Your task to perform on an android device: Open the Play Movies app and select the watchlist tab. Image 0: 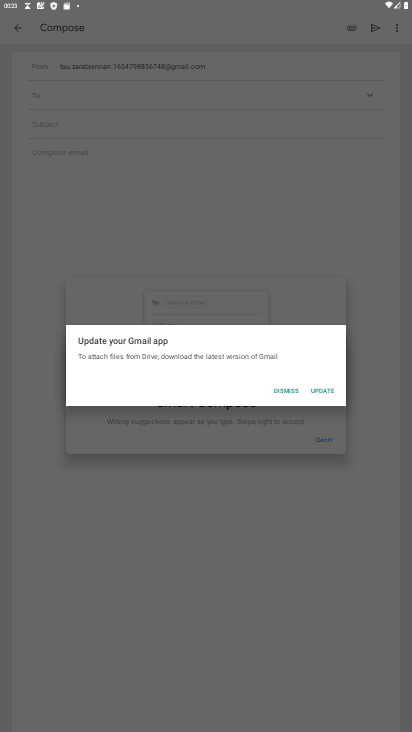
Step 0: press home button
Your task to perform on an android device: Open the Play Movies app and select the watchlist tab. Image 1: 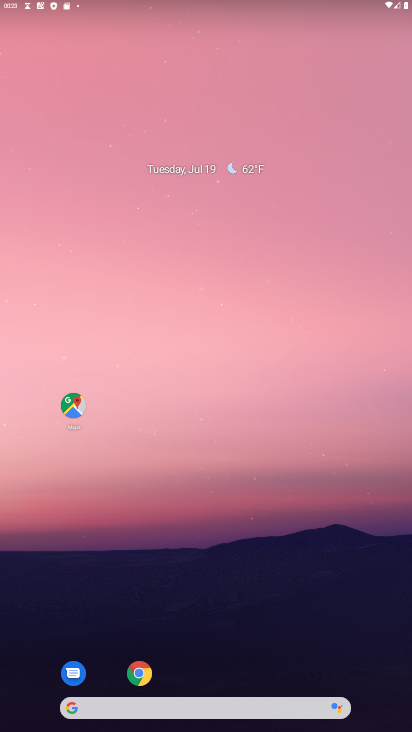
Step 1: drag from (224, 672) to (236, 295)
Your task to perform on an android device: Open the Play Movies app and select the watchlist tab. Image 2: 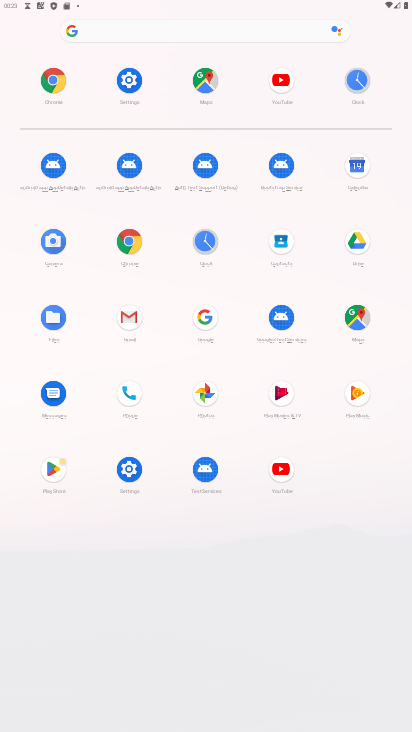
Step 2: click (276, 387)
Your task to perform on an android device: Open the Play Movies app and select the watchlist tab. Image 3: 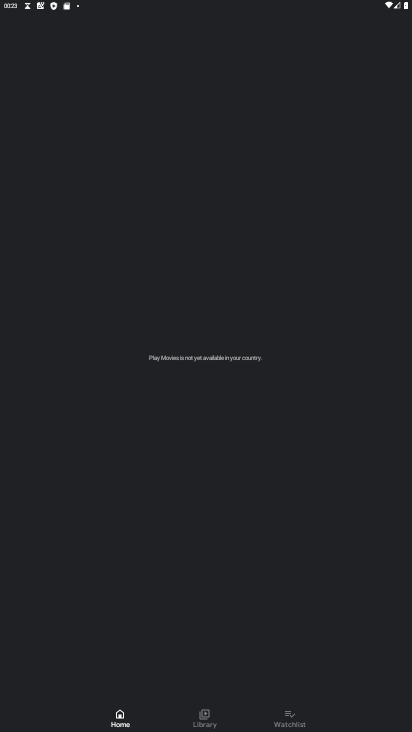
Step 3: click (298, 713)
Your task to perform on an android device: Open the Play Movies app and select the watchlist tab. Image 4: 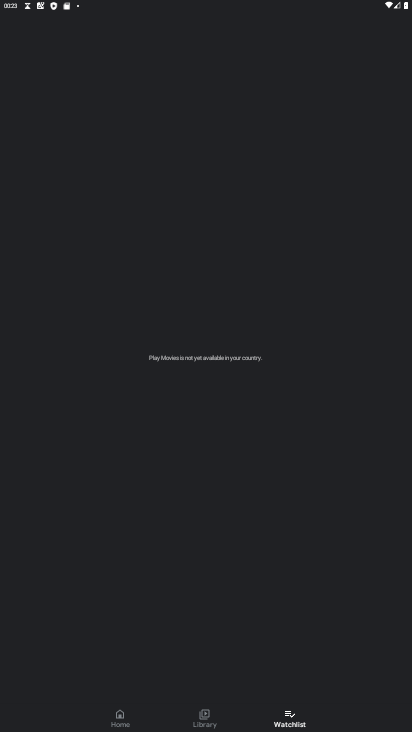
Step 4: task complete